Your task to perform on an android device: Open battery settings Image 0: 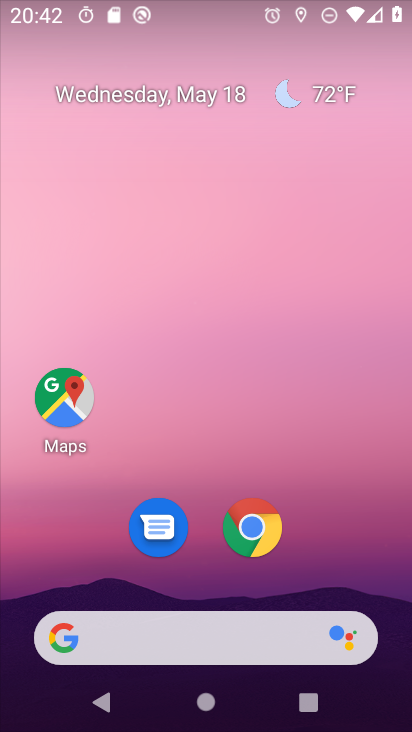
Step 0: drag from (389, 693) to (300, 542)
Your task to perform on an android device: Open battery settings Image 1: 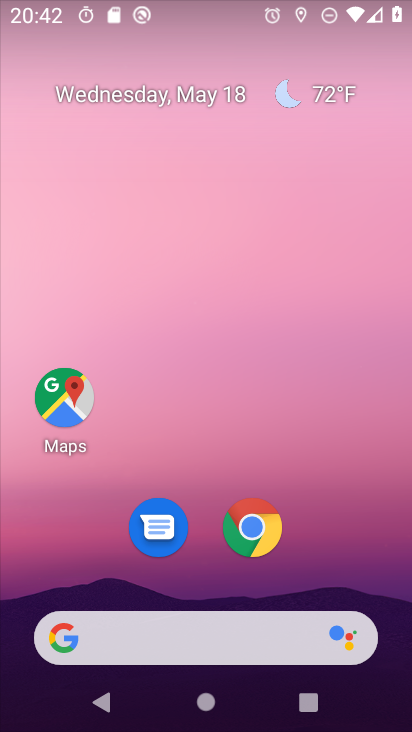
Step 1: drag from (403, 705) to (378, 227)
Your task to perform on an android device: Open battery settings Image 2: 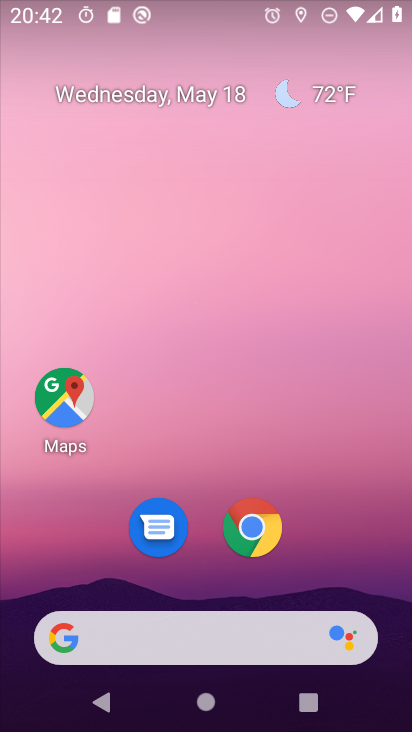
Step 2: drag from (392, 701) to (358, 55)
Your task to perform on an android device: Open battery settings Image 3: 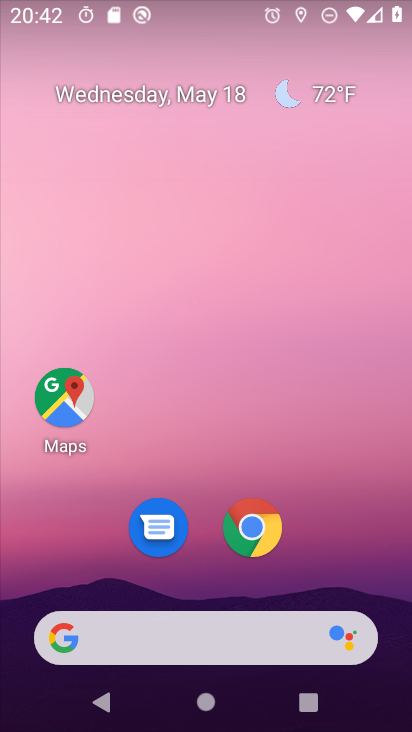
Step 3: drag from (384, 604) to (379, 151)
Your task to perform on an android device: Open battery settings Image 4: 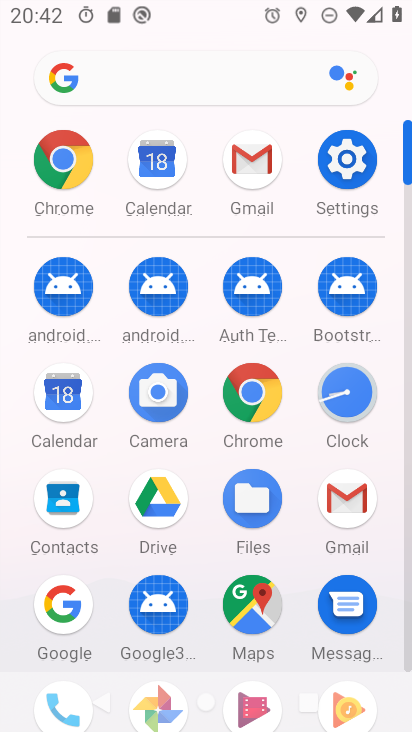
Step 4: click (350, 156)
Your task to perform on an android device: Open battery settings Image 5: 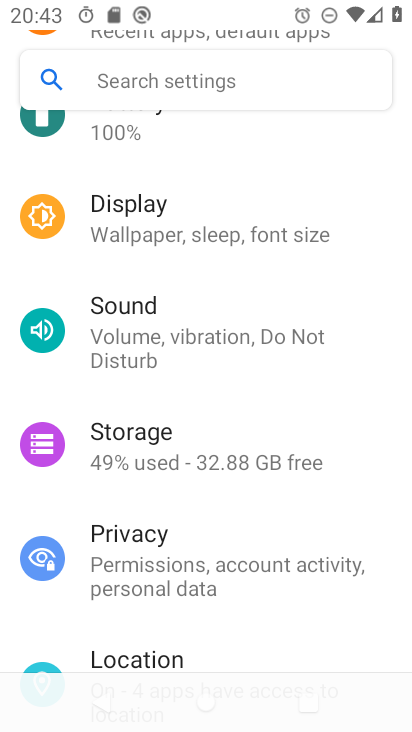
Step 5: drag from (282, 174) to (288, 494)
Your task to perform on an android device: Open battery settings Image 6: 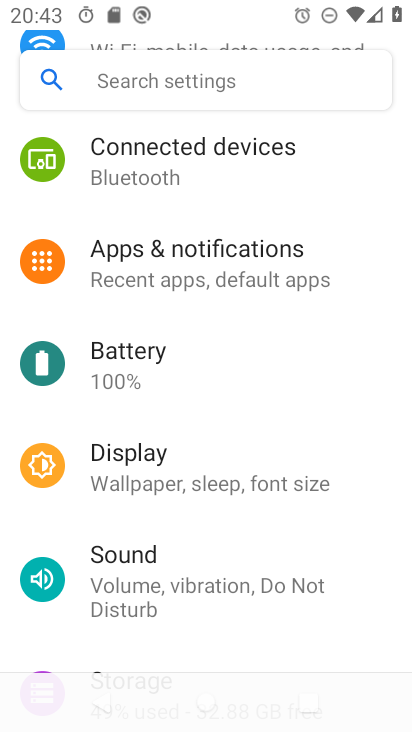
Step 6: click (123, 356)
Your task to perform on an android device: Open battery settings Image 7: 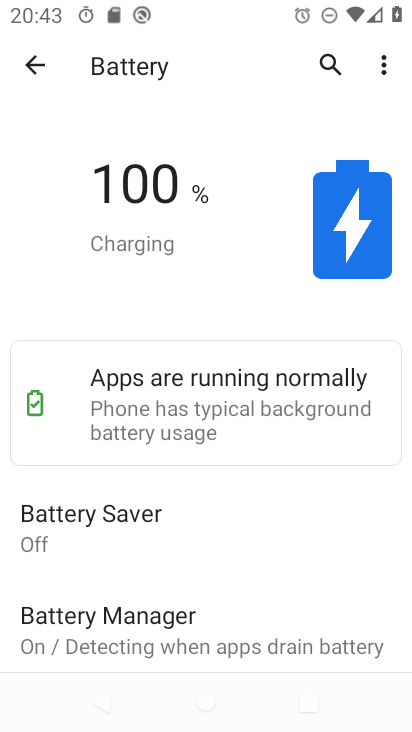
Step 7: task complete